Your task to perform on an android device: create a new album in the google photos Image 0: 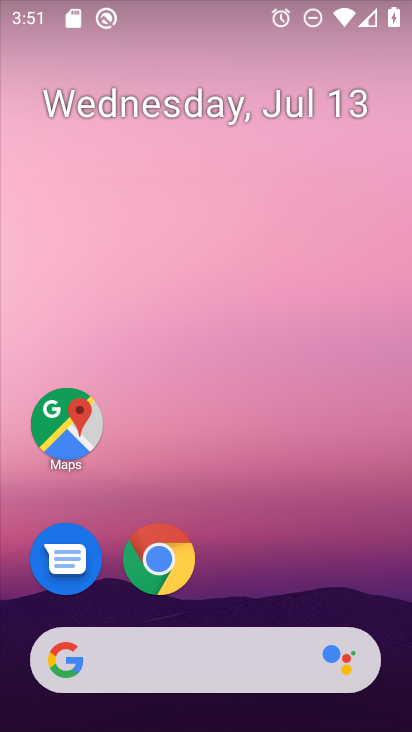
Step 0: drag from (313, 562) to (315, 144)
Your task to perform on an android device: create a new album in the google photos Image 1: 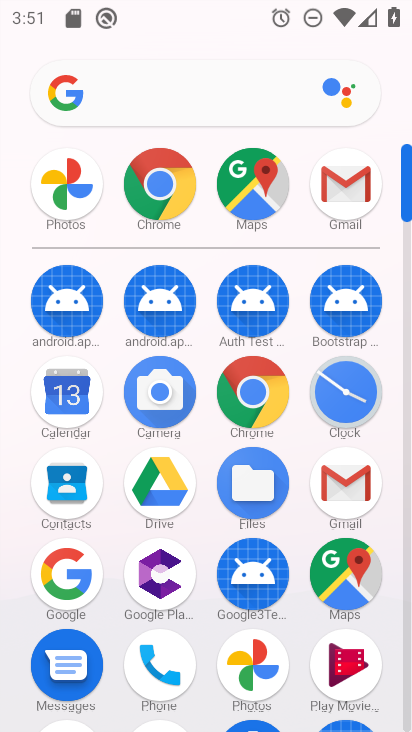
Step 1: click (250, 660)
Your task to perform on an android device: create a new album in the google photos Image 2: 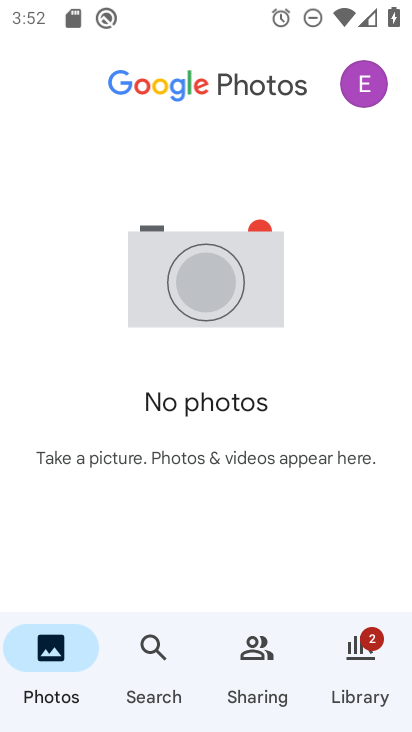
Step 2: click (349, 652)
Your task to perform on an android device: create a new album in the google photos Image 3: 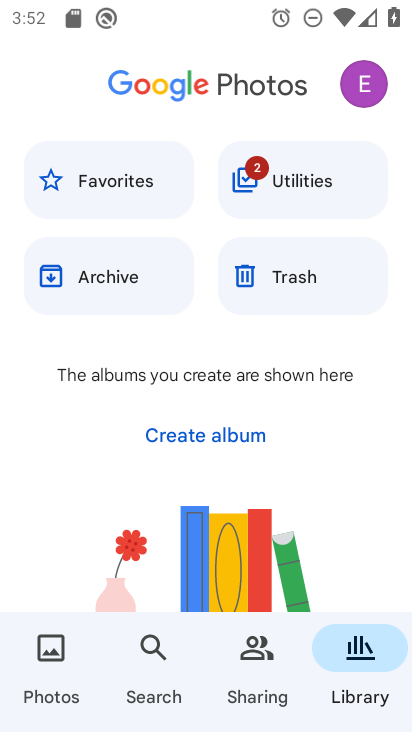
Step 3: click (247, 438)
Your task to perform on an android device: create a new album in the google photos Image 4: 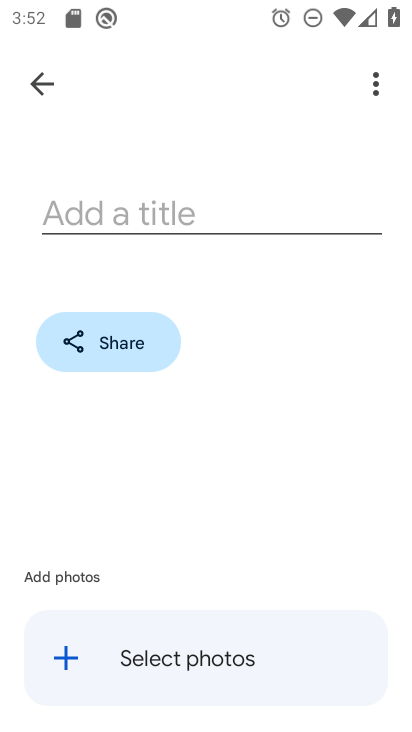
Step 4: click (227, 223)
Your task to perform on an android device: create a new album in the google photos Image 5: 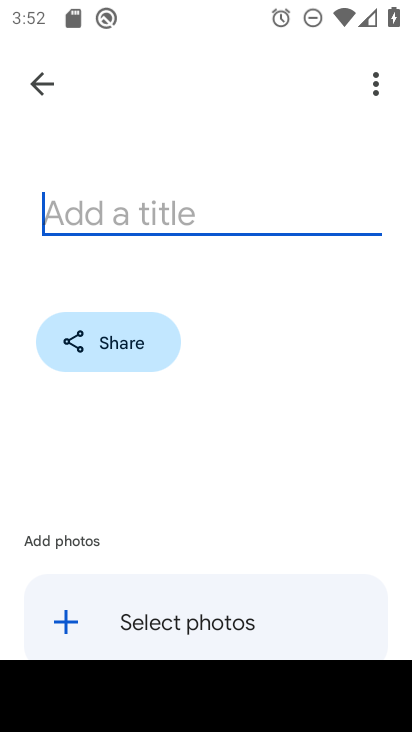
Step 5: type "fav"
Your task to perform on an android device: create a new album in the google photos Image 6: 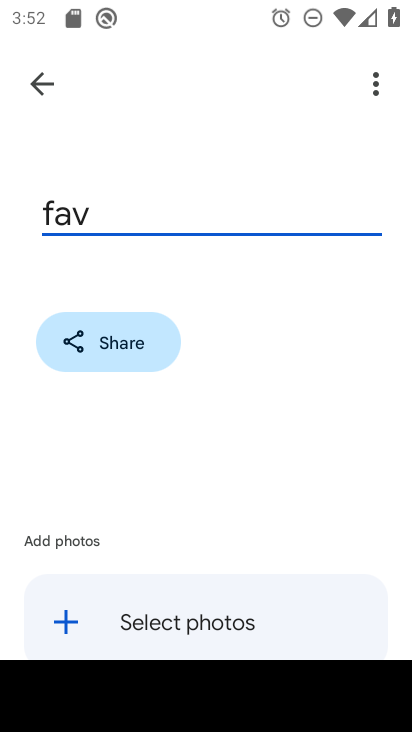
Step 6: click (169, 618)
Your task to perform on an android device: create a new album in the google photos Image 7: 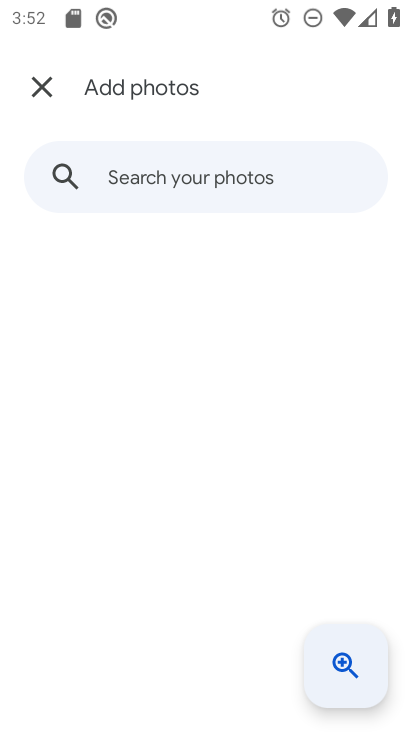
Step 7: task complete